Your task to perform on an android device: Open display settings Image 0: 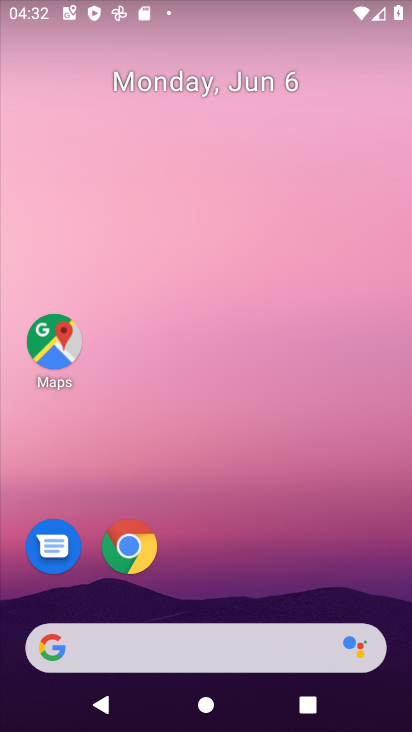
Step 0: drag from (323, 589) to (297, 60)
Your task to perform on an android device: Open display settings Image 1: 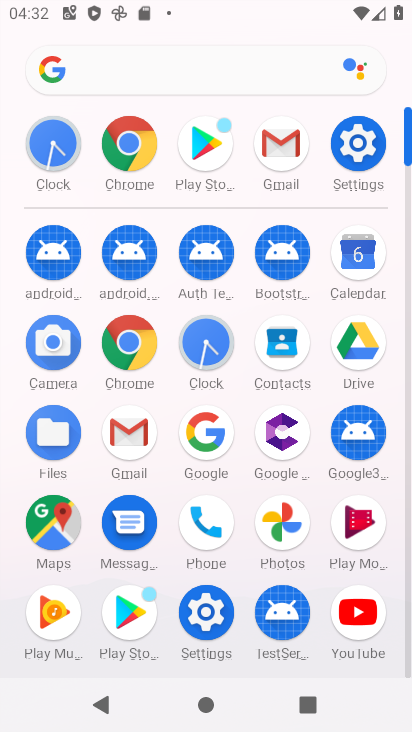
Step 1: click (383, 145)
Your task to perform on an android device: Open display settings Image 2: 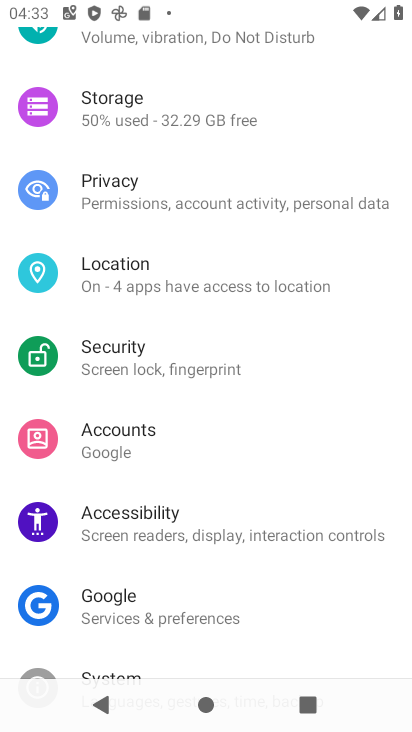
Step 2: task complete